Your task to perform on an android device: delete location history Image 0: 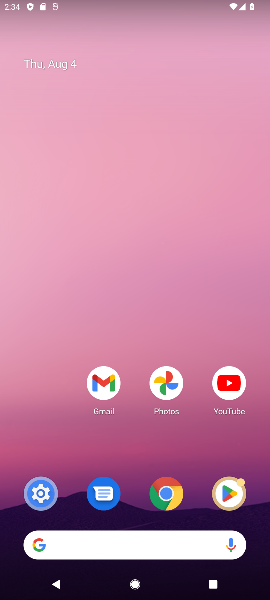
Step 0: drag from (121, 506) to (198, 116)
Your task to perform on an android device: delete location history Image 1: 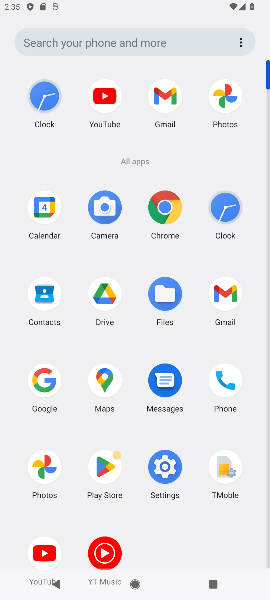
Step 1: click (167, 472)
Your task to perform on an android device: delete location history Image 2: 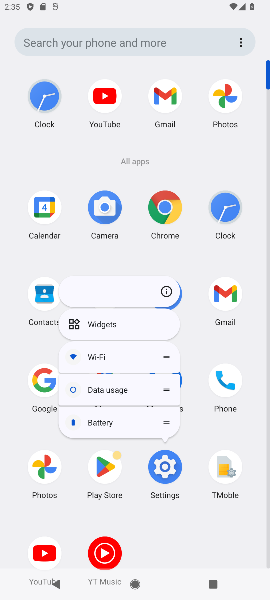
Step 2: click (164, 466)
Your task to perform on an android device: delete location history Image 3: 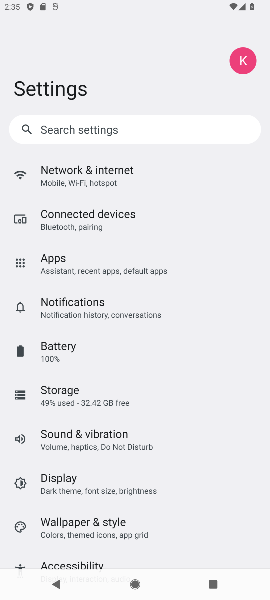
Step 3: drag from (101, 550) to (122, 249)
Your task to perform on an android device: delete location history Image 4: 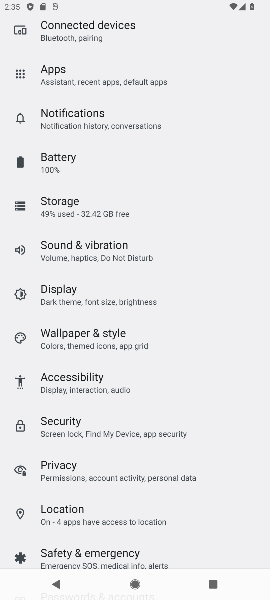
Step 4: click (93, 521)
Your task to perform on an android device: delete location history Image 5: 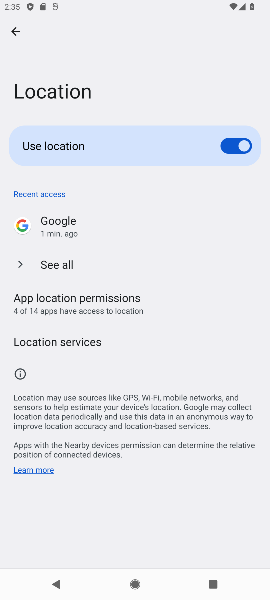
Step 5: click (54, 335)
Your task to perform on an android device: delete location history Image 6: 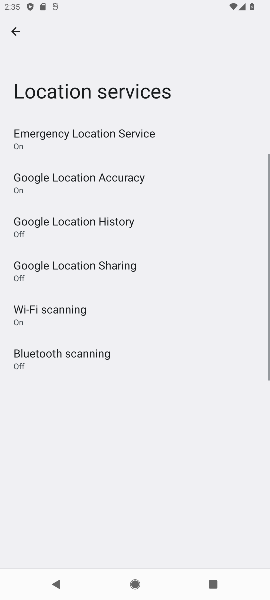
Step 6: click (71, 215)
Your task to perform on an android device: delete location history Image 7: 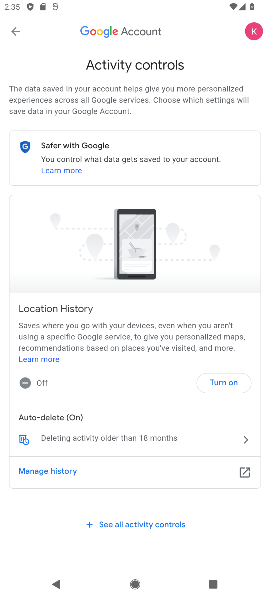
Step 7: click (99, 436)
Your task to perform on an android device: delete location history Image 8: 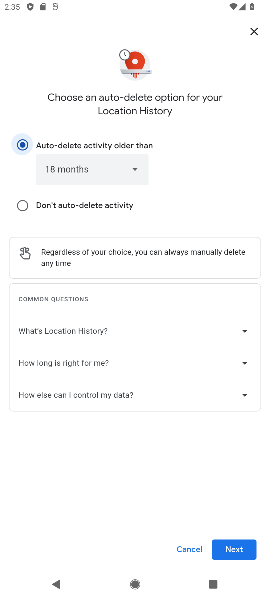
Step 8: click (244, 552)
Your task to perform on an android device: delete location history Image 9: 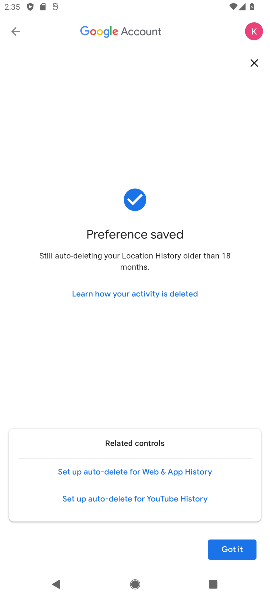
Step 9: click (244, 552)
Your task to perform on an android device: delete location history Image 10: 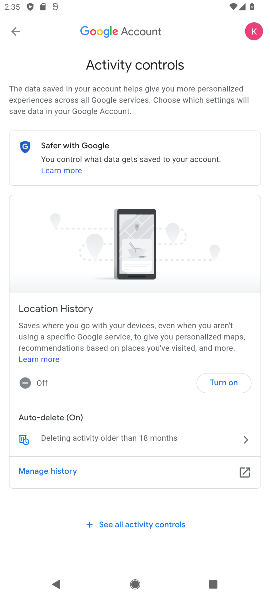
Step 10: task complete